Your task to perform on an android device: see creations saved in the google photos Image 0: 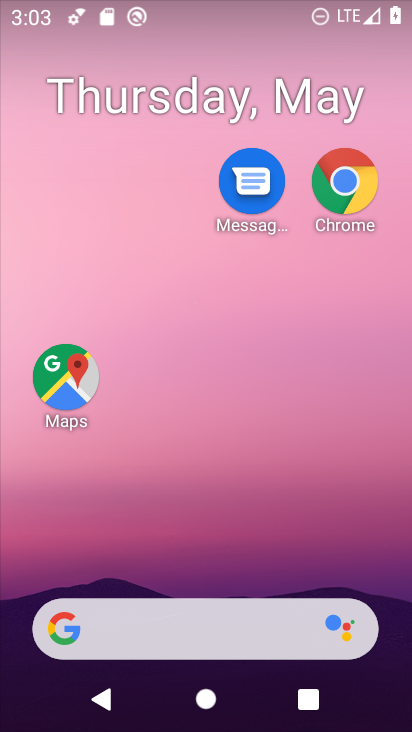
Step 0: drag from (296, 576) to (358, 6)
Your task to perform on an android device: see creations saved in the google photos Image 1: 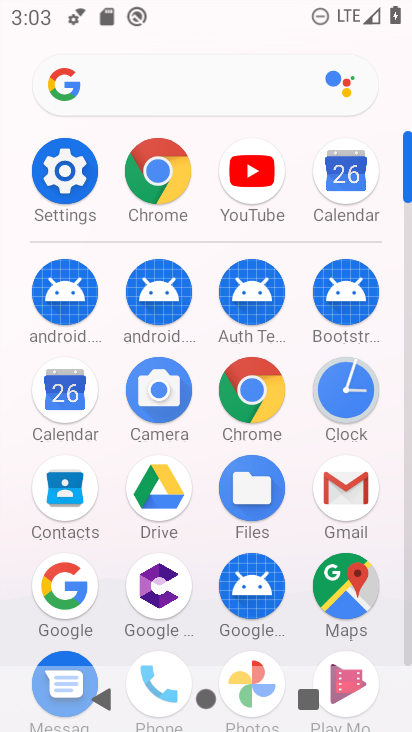
Step 1: click (235, 669)
Your task to perform on an android device: see creations saved in the google photos Image 2: 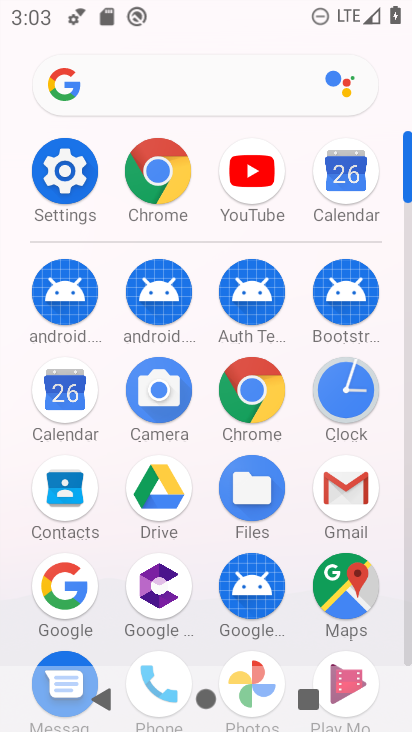
Step 2: drag from (296, 646) to (326, 404)
Your task to perform on an android device: see creations saved in the google photos Image 3: 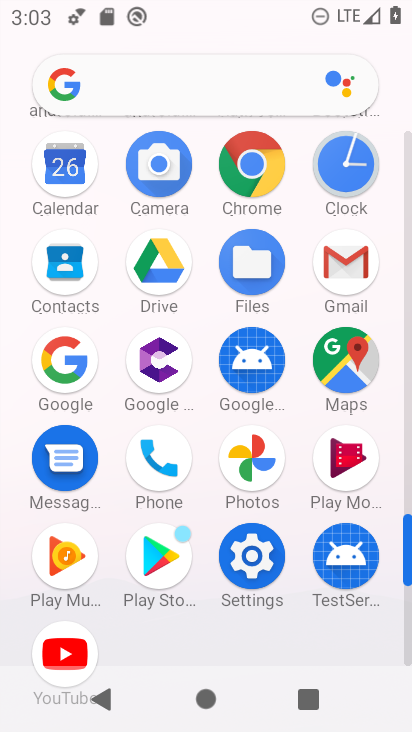
Step 3: click (272, 470)
Your task to perform on an android device: see creations saved in the google photos Image 4: 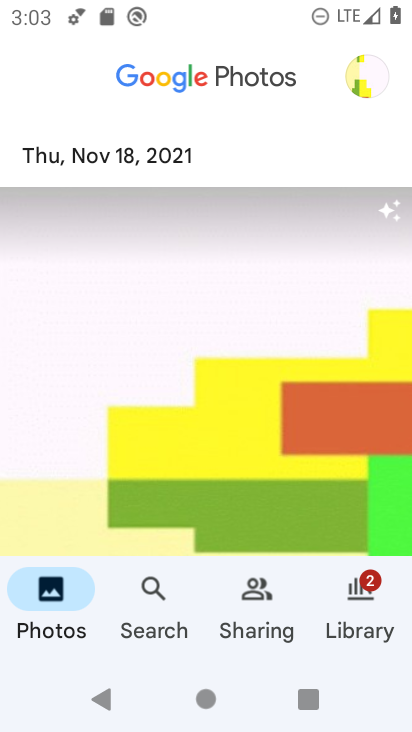
Step 4: click (378, 78)
Your task to perform on an android device: see creations saved in the google photos Image 5: 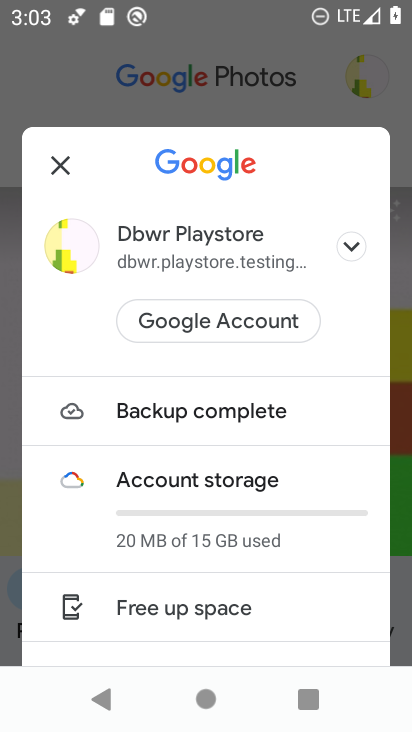
Step 5: click (50, 165)
Your task to perform on an android device: see creations saved in the google photos Image 6: 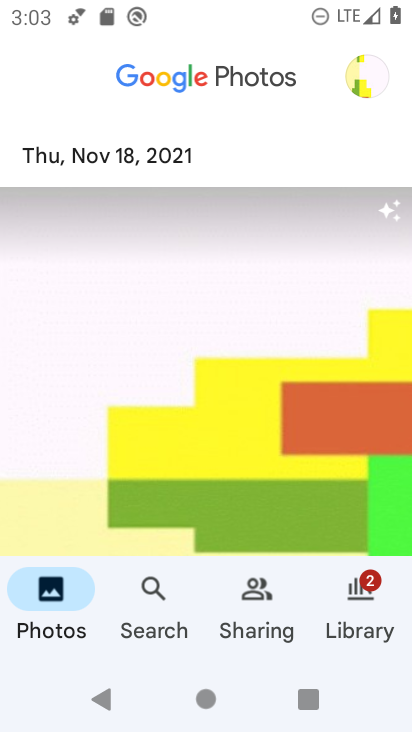
Step 6: click (268, 628)
Your task to perform on an android device: see creations saved in the google photos Image 7: 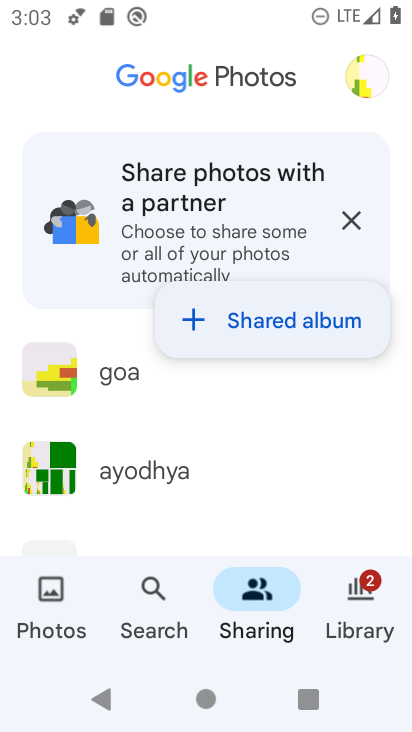
Step 7: task complete